Your task to perform on an android device: What's the weather going to be tomorrow? Image 0: 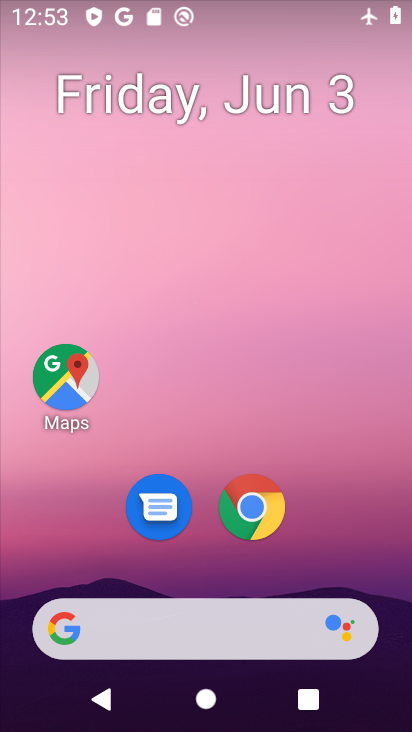
Step 0: drag from (373, 558) to (331, 212)
Your task to perform on an android device: What's the weather going to be tomorrow? Image 1: 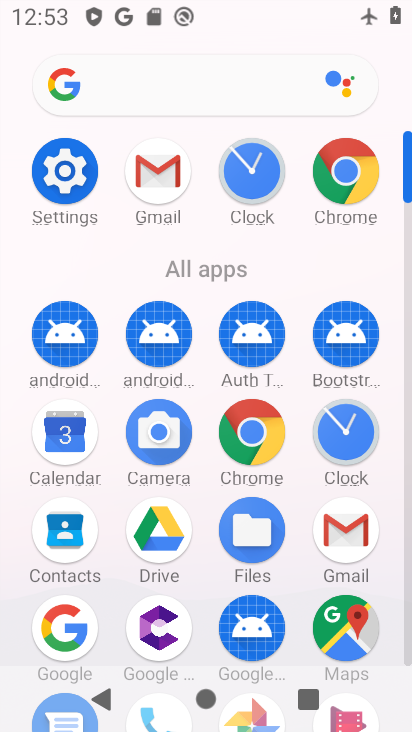
Step 1: click (262, 459)
Your task to perform on an android device: What's the weather going to be tomorrow? Image 2: 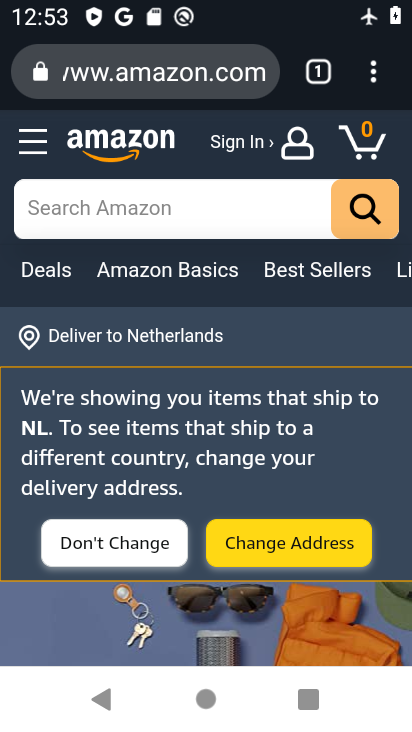
Step 2: click (174, 66)
Your task to perform on an android device: What's the weather going to be tomorrow? Image 3: 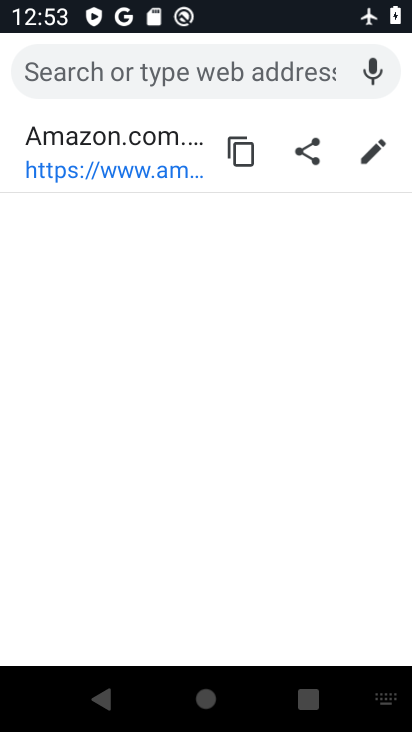
Step 3: type "what's the weather going to be tomorrow "
Your task to perform on an android device: What's the weather going to be tomorrow? Image 4: 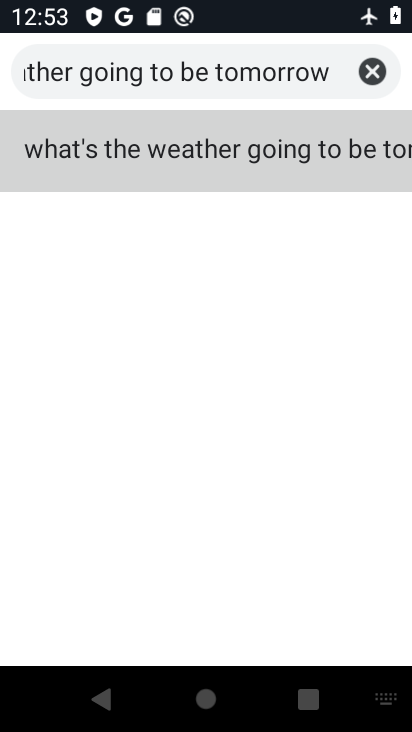
Step 4: click (202, 161)
Your task to perform on an android device: What's the weather going to be tomorrow? Image 5: 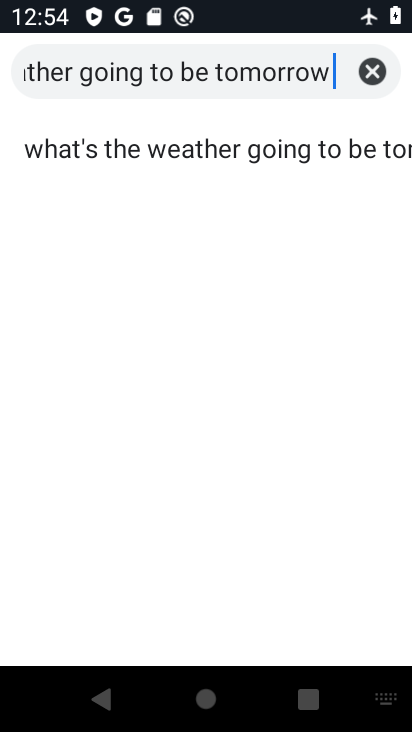
Step 5: click (225, 150)
Your task to perform on an android device: What's the weather going to be tomorrow? Image 6: 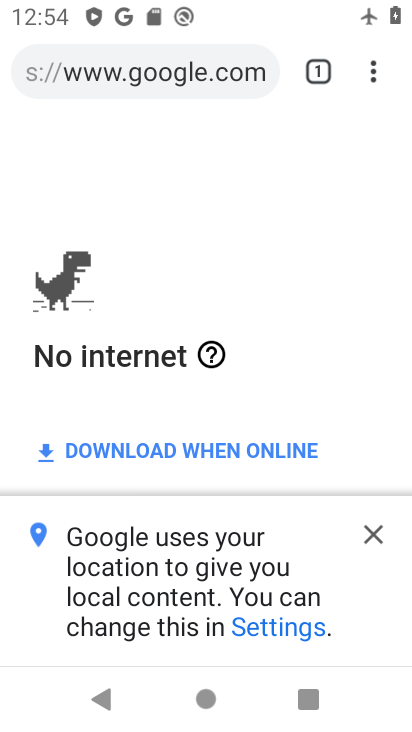
Step 6: task complete